Your task to perform on an android device: Set the phone to "Do not disturb". Image 0: 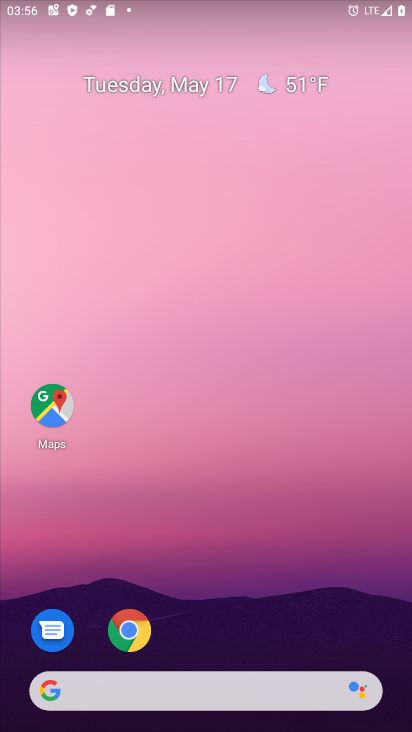
Step 0: drag from (160, 6) to (228, 689)
Your task to perform on an android device: Set the phone to "Do not disturb". Image 1: 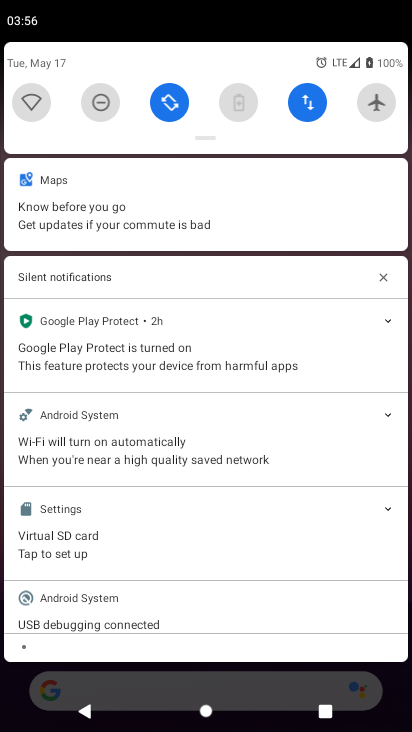
Step 1: click (103, 105)
Your task to perform on an android device: Set the phone to "Do not disturb". Image 2: 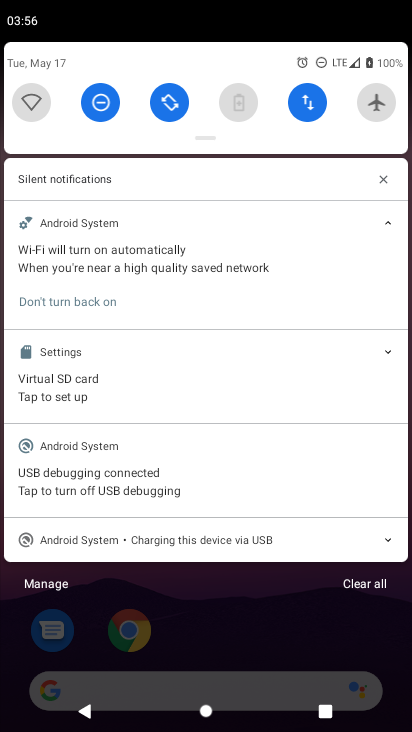
Step 2: task complete